Your task to perform on an android device: Go to Yahoo.com Image 0: 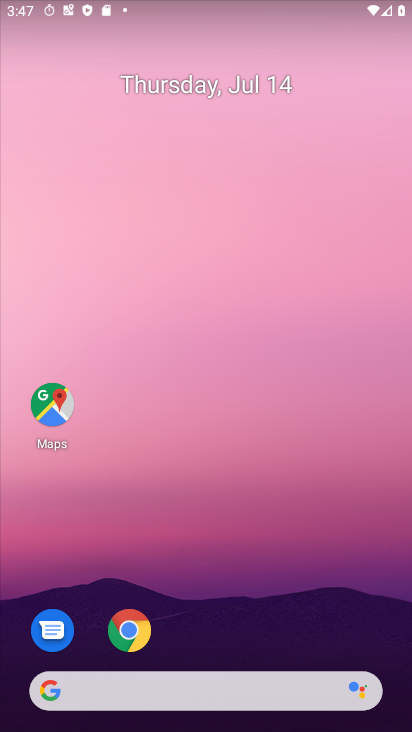
Step 0: drag from (232, 729) to (280, 301)
Your task to perform on an android device: Go to Yahoo.com Image 1: 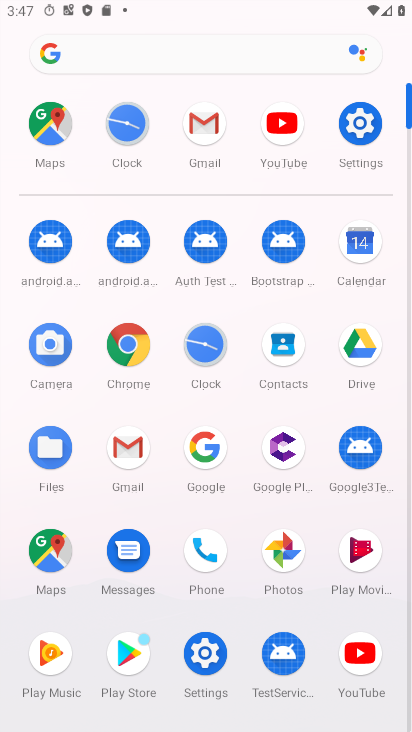
Step 1: click (124, 344)
Your task to perform on an android device: Go to Yahoo.com Image 2: 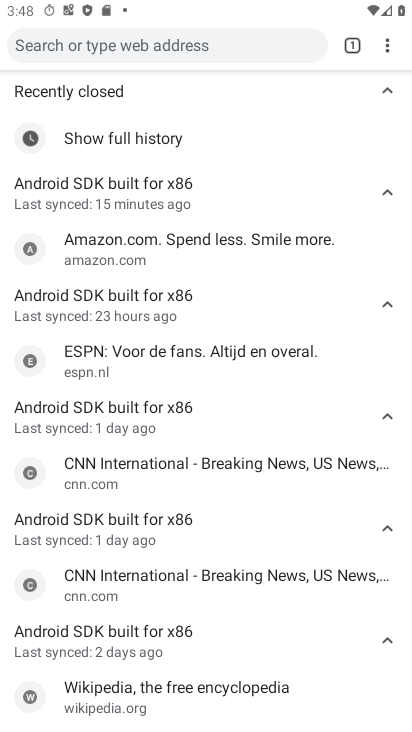
Step 2: click (388, 48)
Your task to perform on an android device: Go to Yahoo.com Image 3: 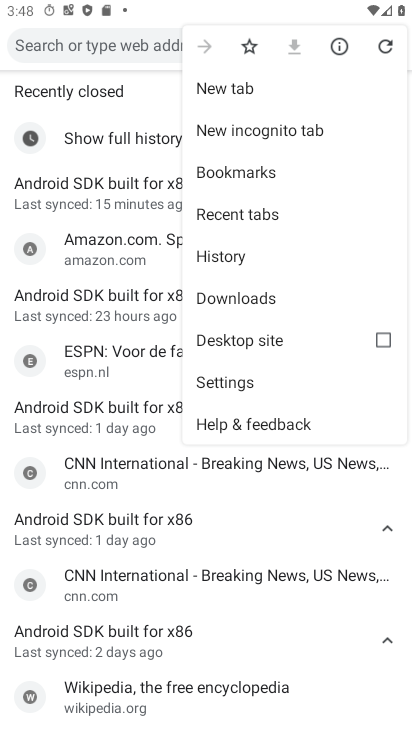
Step 3: click (232, 83)
Your task to perform on an android device: Go to Yahoo.com Image 4: 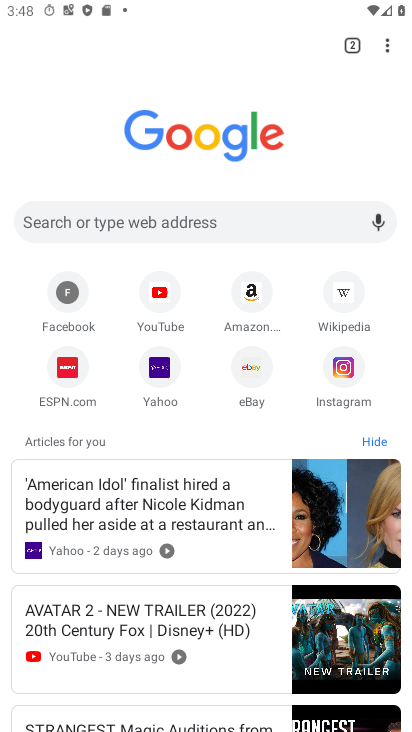
Step 4: click (160, 364)
Your task to perform on an android device: Go to Yahoo.com Image 5: 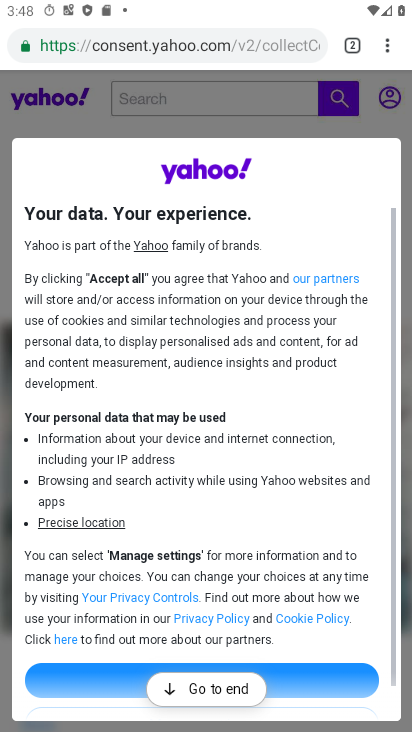
Step 5: task complete